Your task to perform on an android device: How do I get to the nearest Macy's? Image 0: 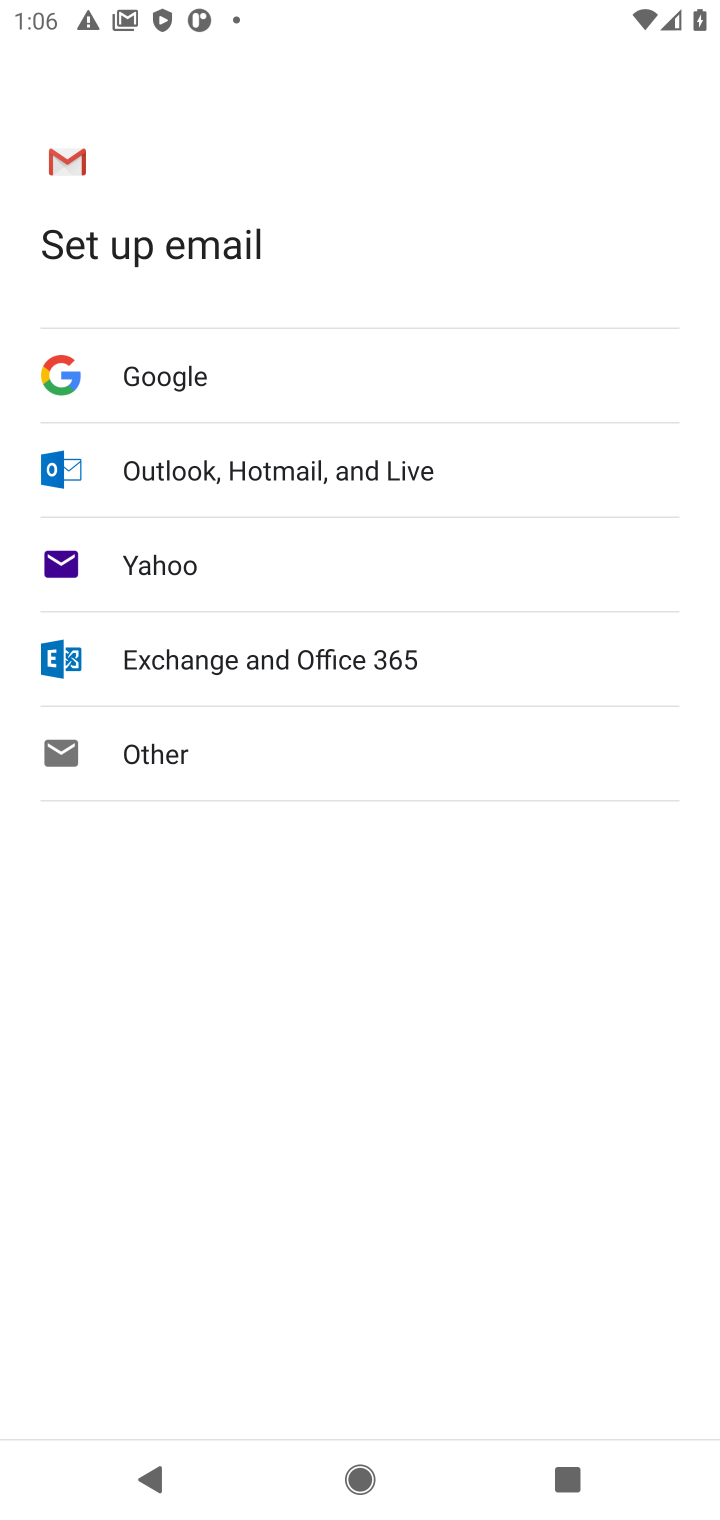
Step 0: press home button
Your task to perform on an android device: How do I get to the nearest Macy's? Image 1: 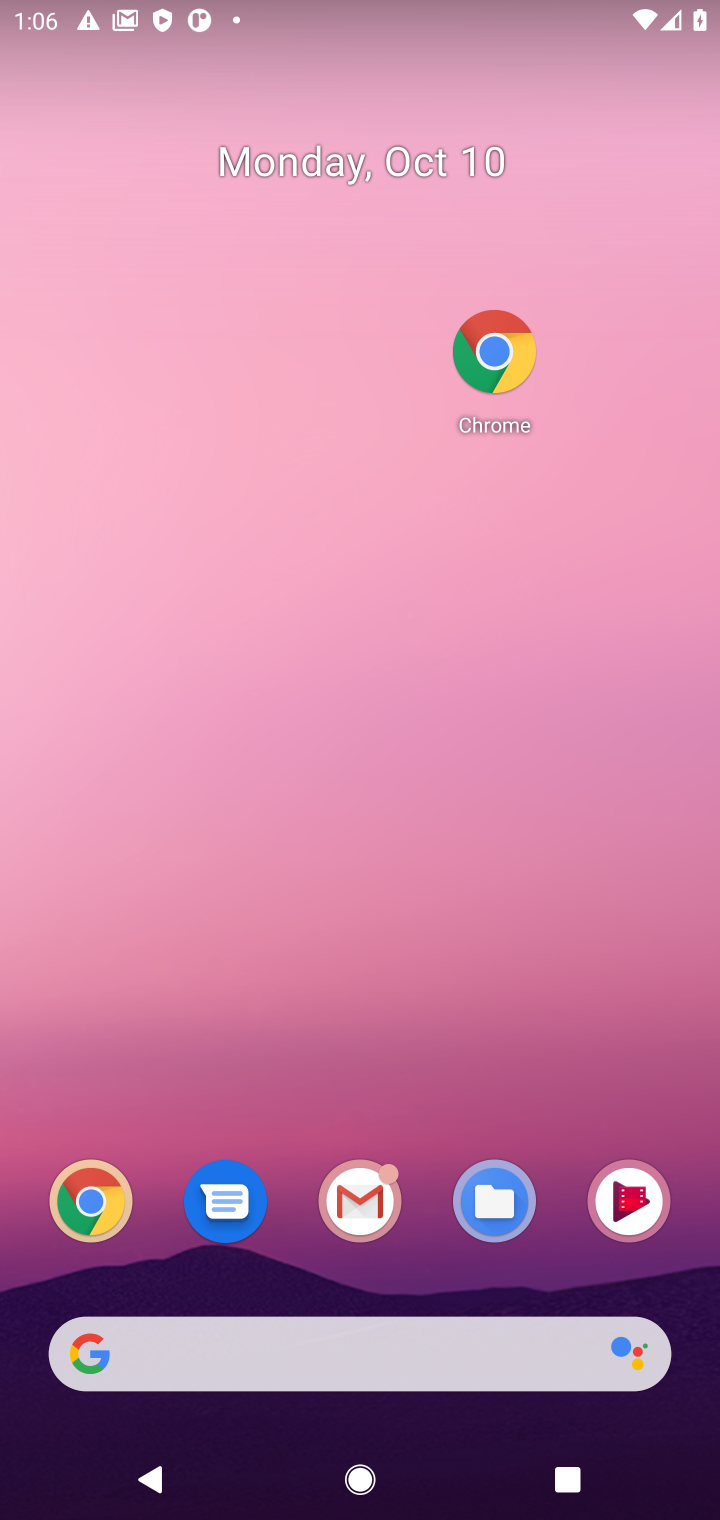
Step 1: click (104, 1202)
Your task to perform on an android device: How do I get to the nearest Macy's? Image 2: 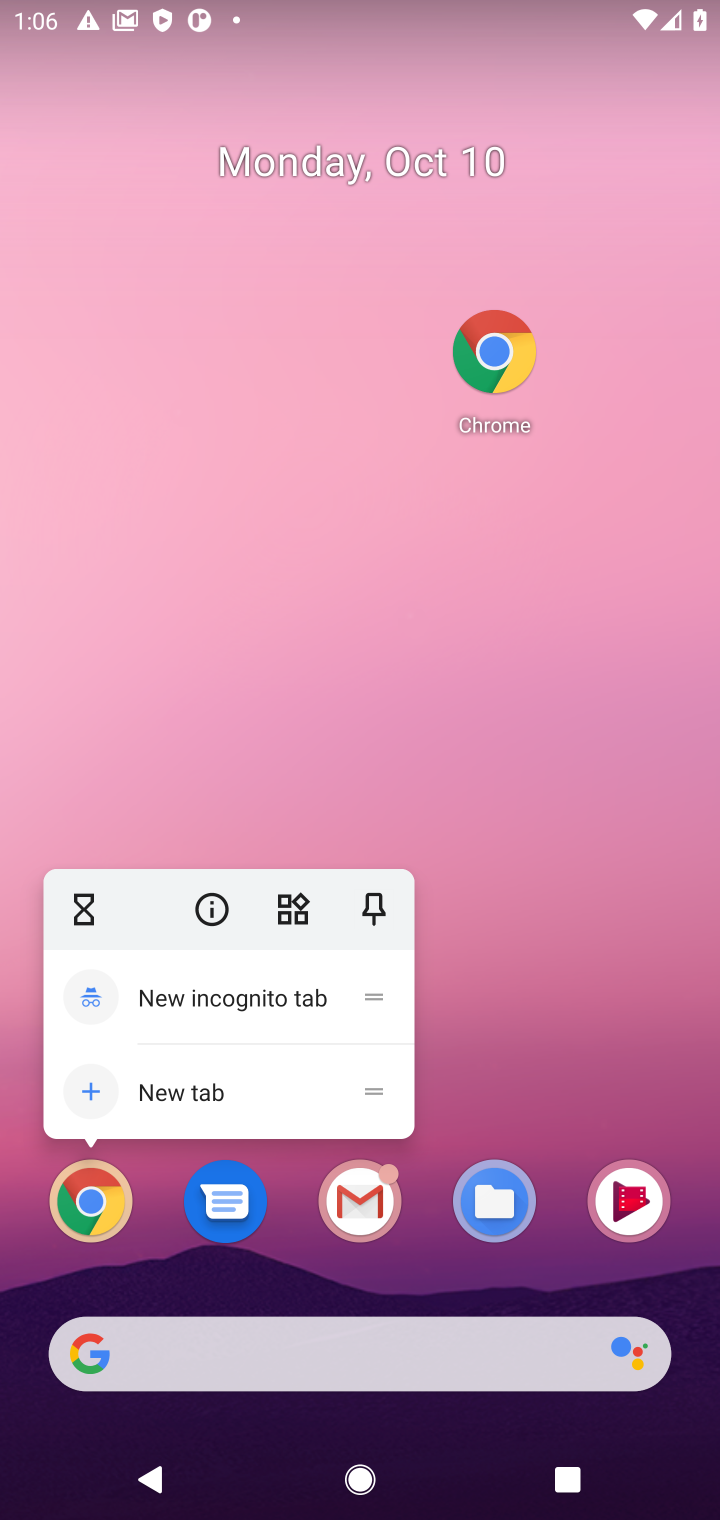
Step 2: click (102, 1205)
Your task to perform on an android device: How do I get to the nearest Macy's? Image 3: 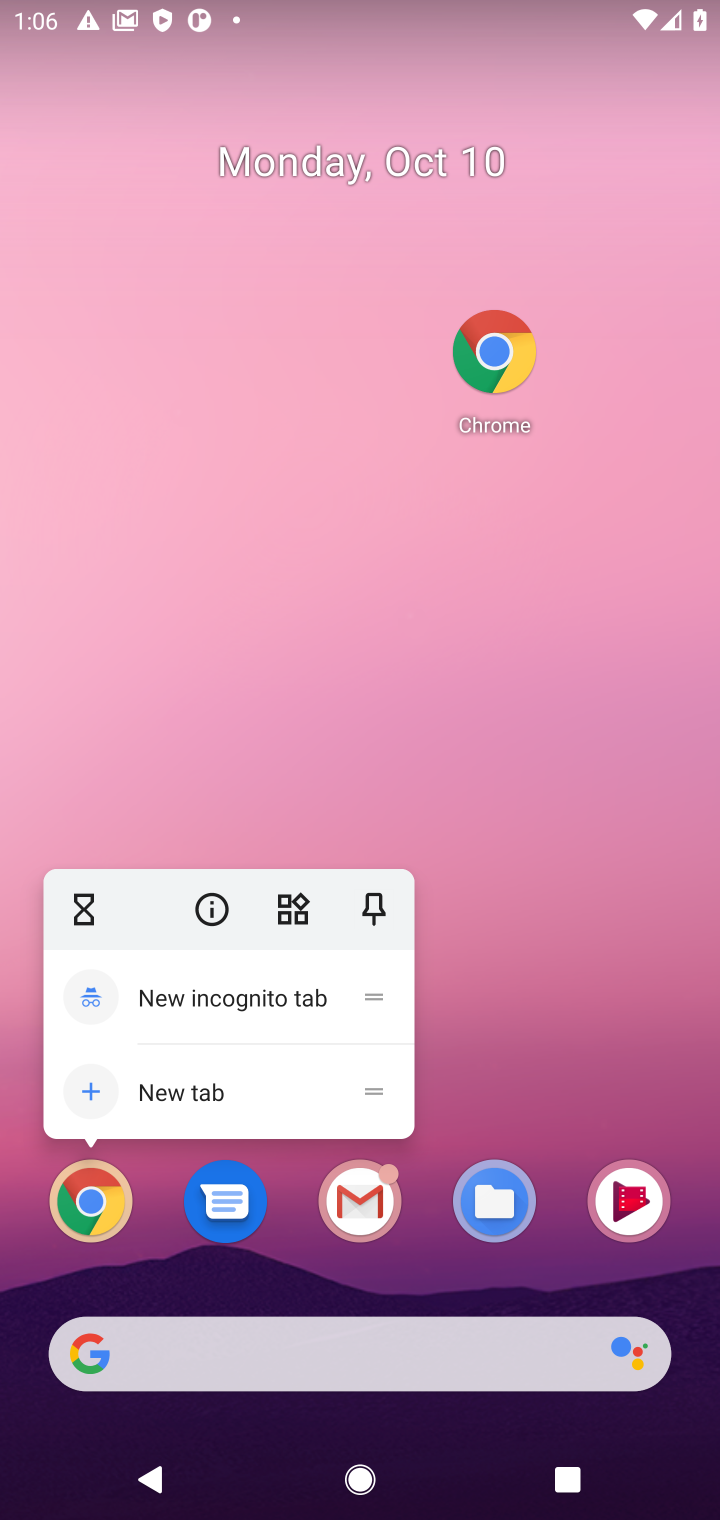
Step 3: click (504, 326)
Your task to perform on an android device: How do I get to the nearest Macy's? Image 4: 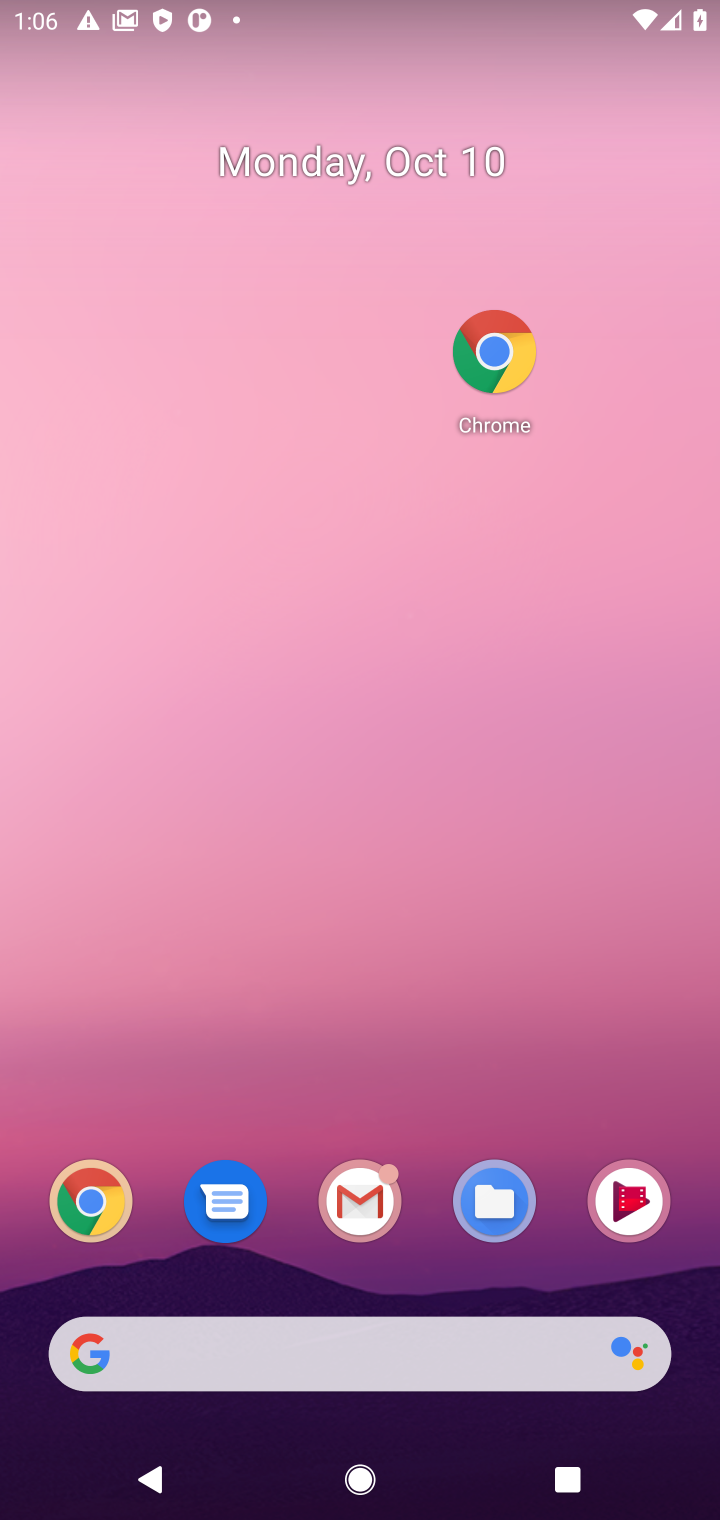
Step 4: click (494, 359)
Your task to perform on an android device: How do I get to the nearest Macy's? Image 5: 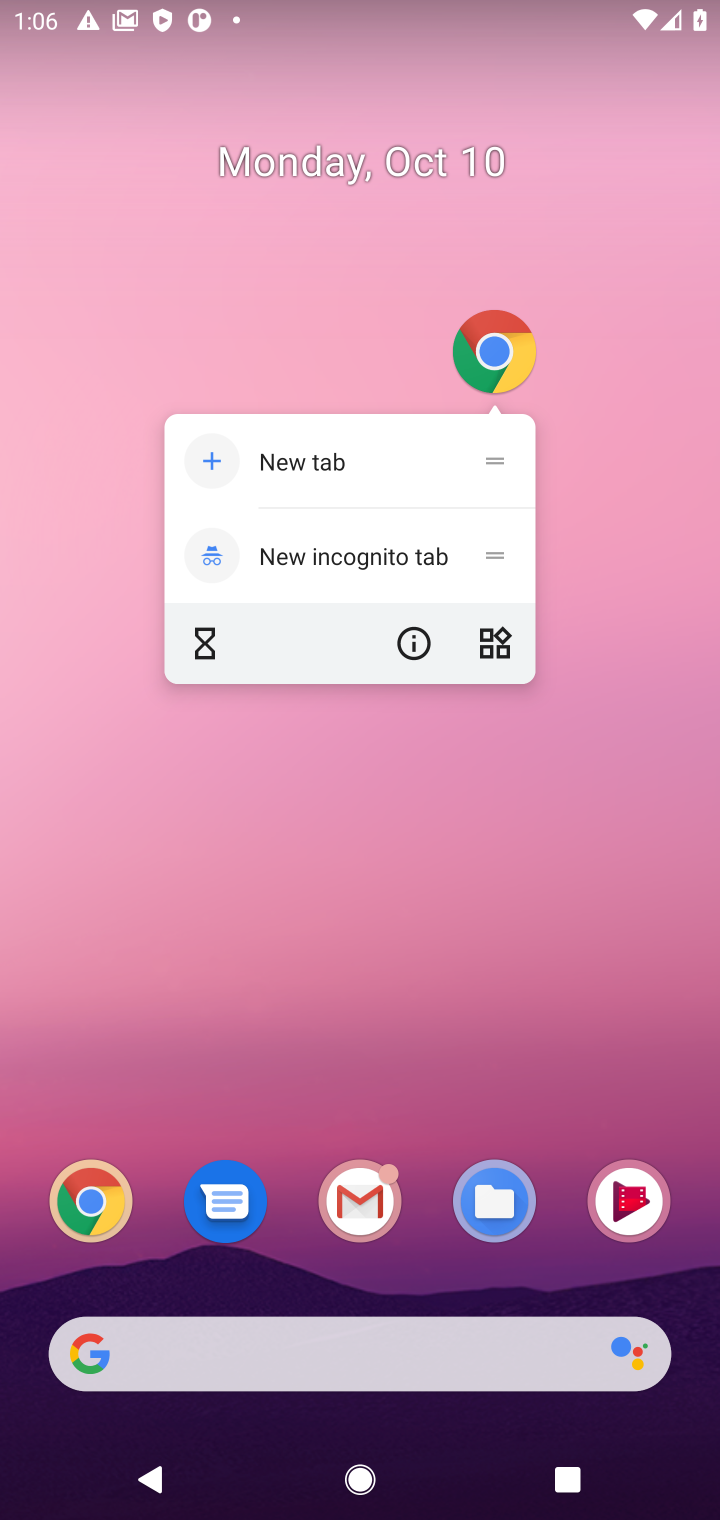
Step 5: click (494, 359)
Your task to perform on an android device: How do I get to the nearest Macy's? Image 6: 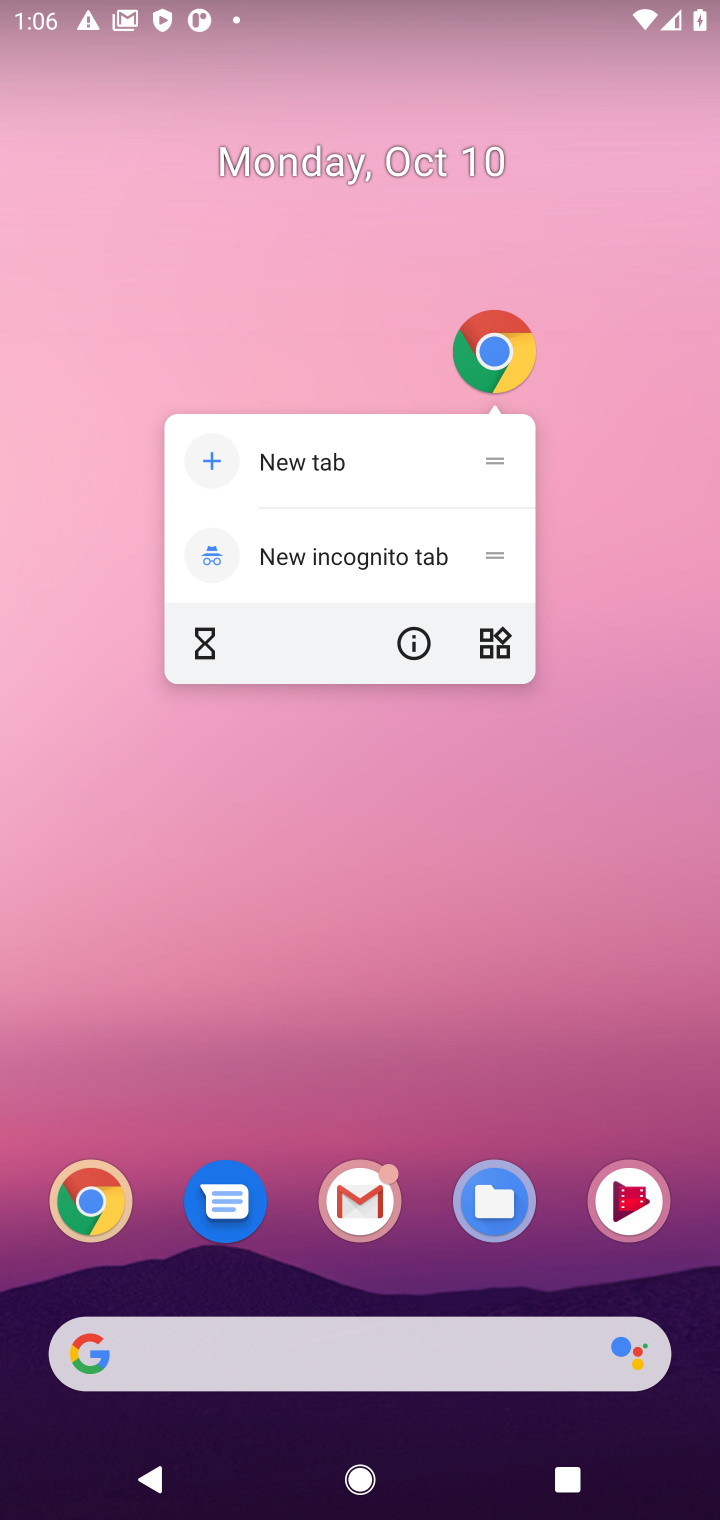
Step 6: click (494, 359)
Your task to perform on an android device: How do I get to the nearest Macy's? Image 7: 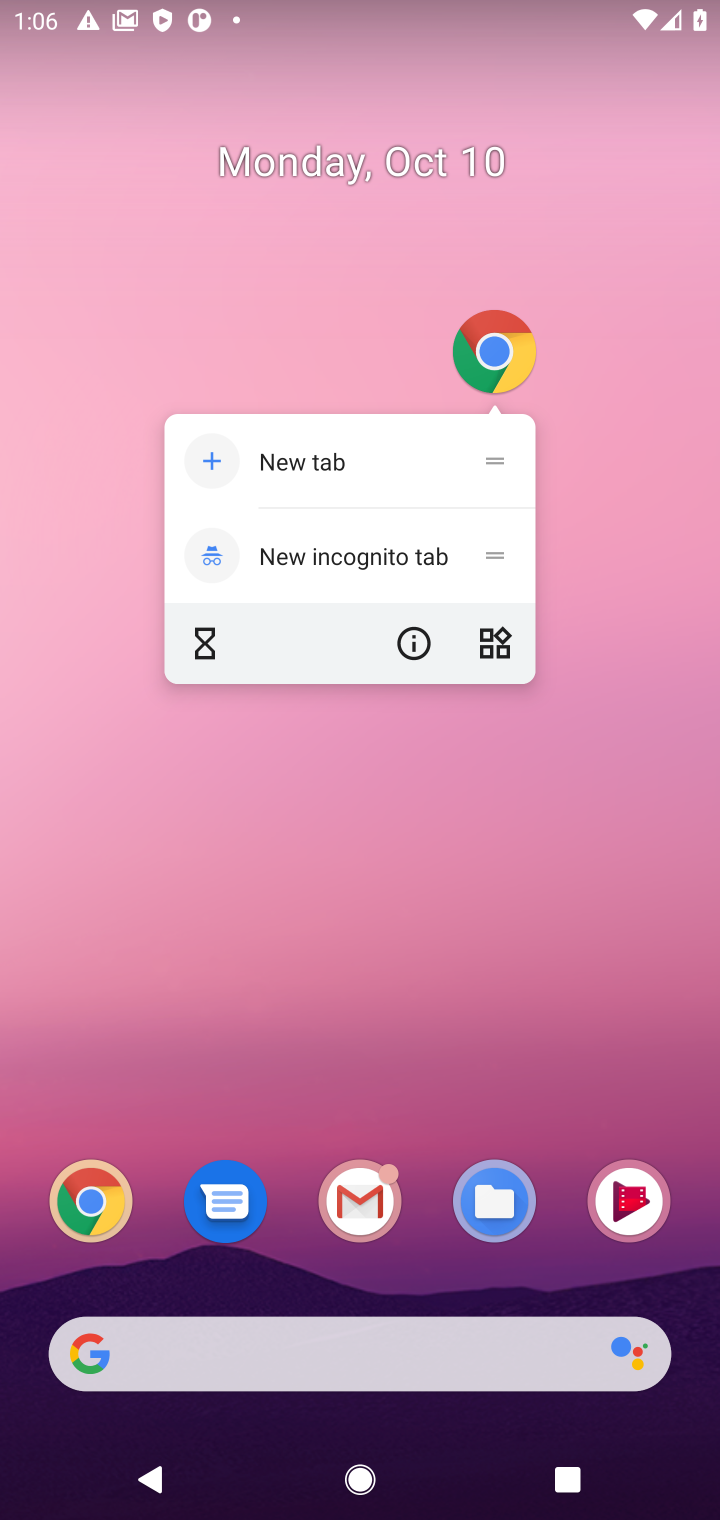
Step 7: click (494, 359)
Your task to perform on an android device: How do I get to the nearest Macy's? Image 8: 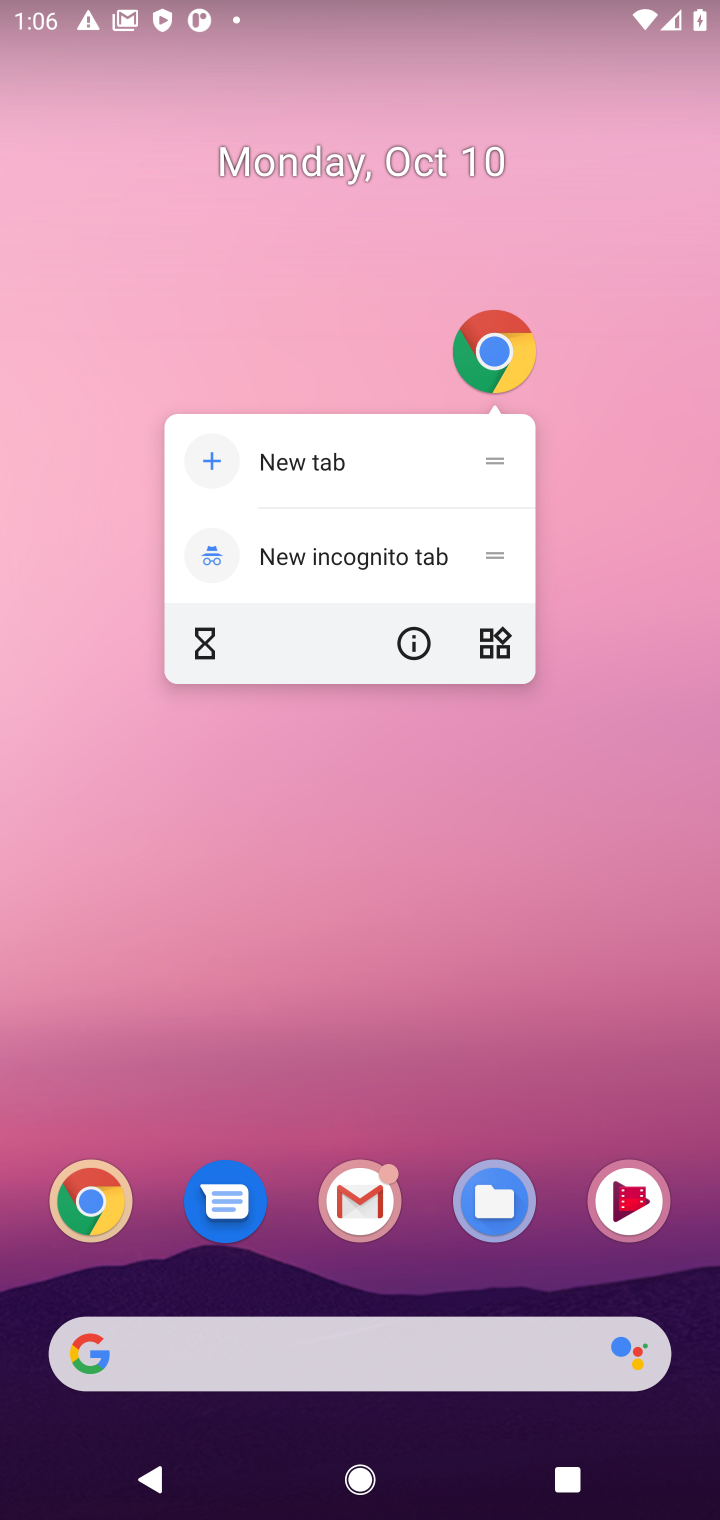
Step 8: click (494, 361)
Your task to perform on an android device: How do I get to the nearest Macy's? Image 9: 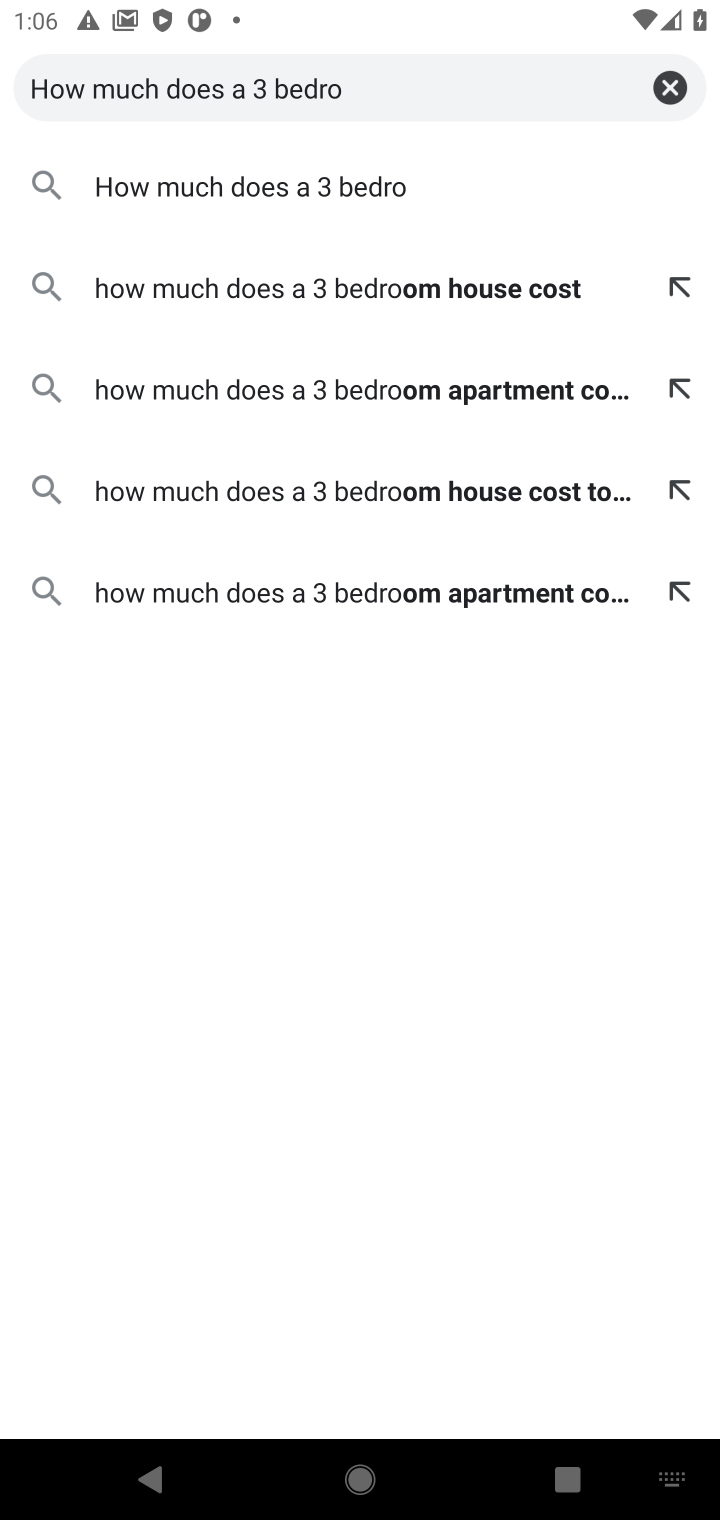
Step 9: click (672, 88)
Your task to perform on an android device: How do I get to the nearest Macy's? Image 10: 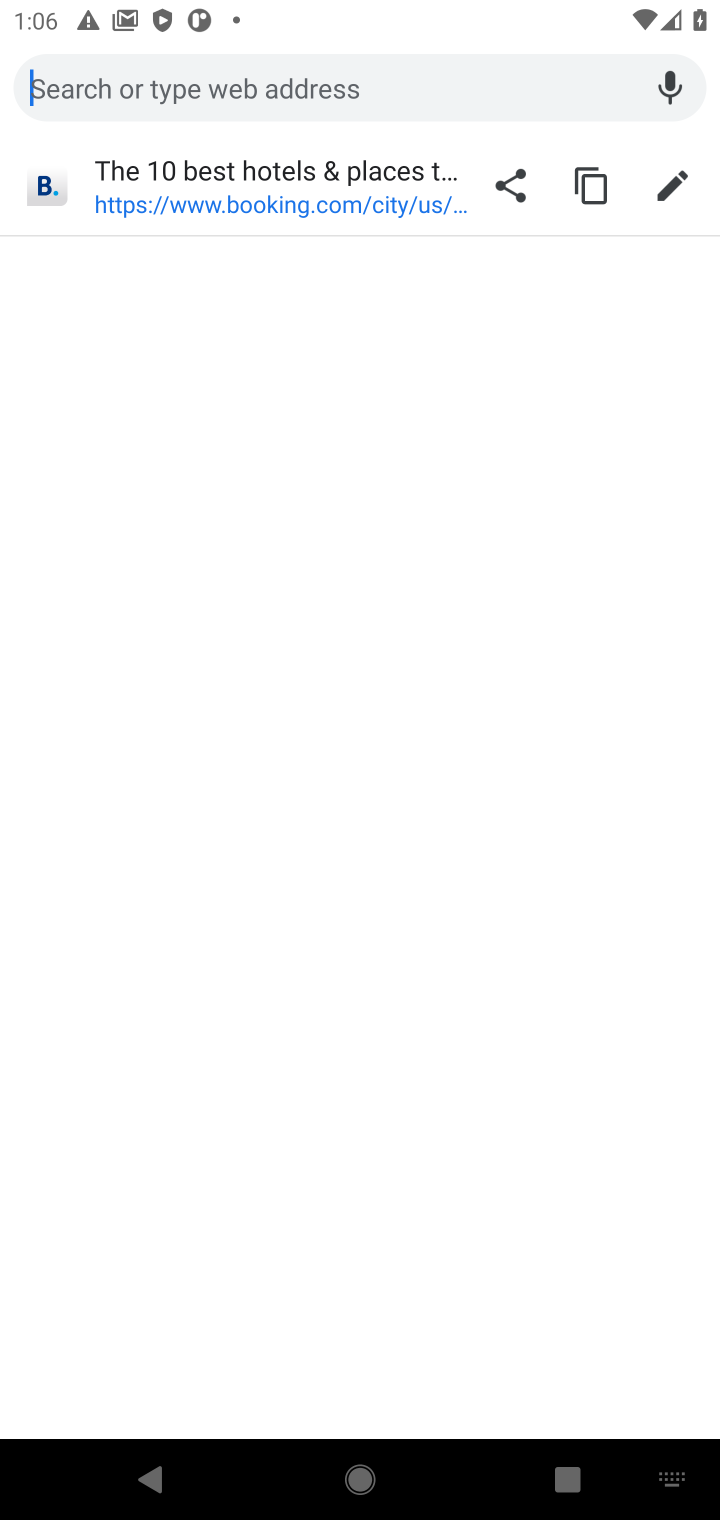
Step 10: click (344, 77)
Your task to perform on an android device: How do I get to the nearest Macy's? Image 11: 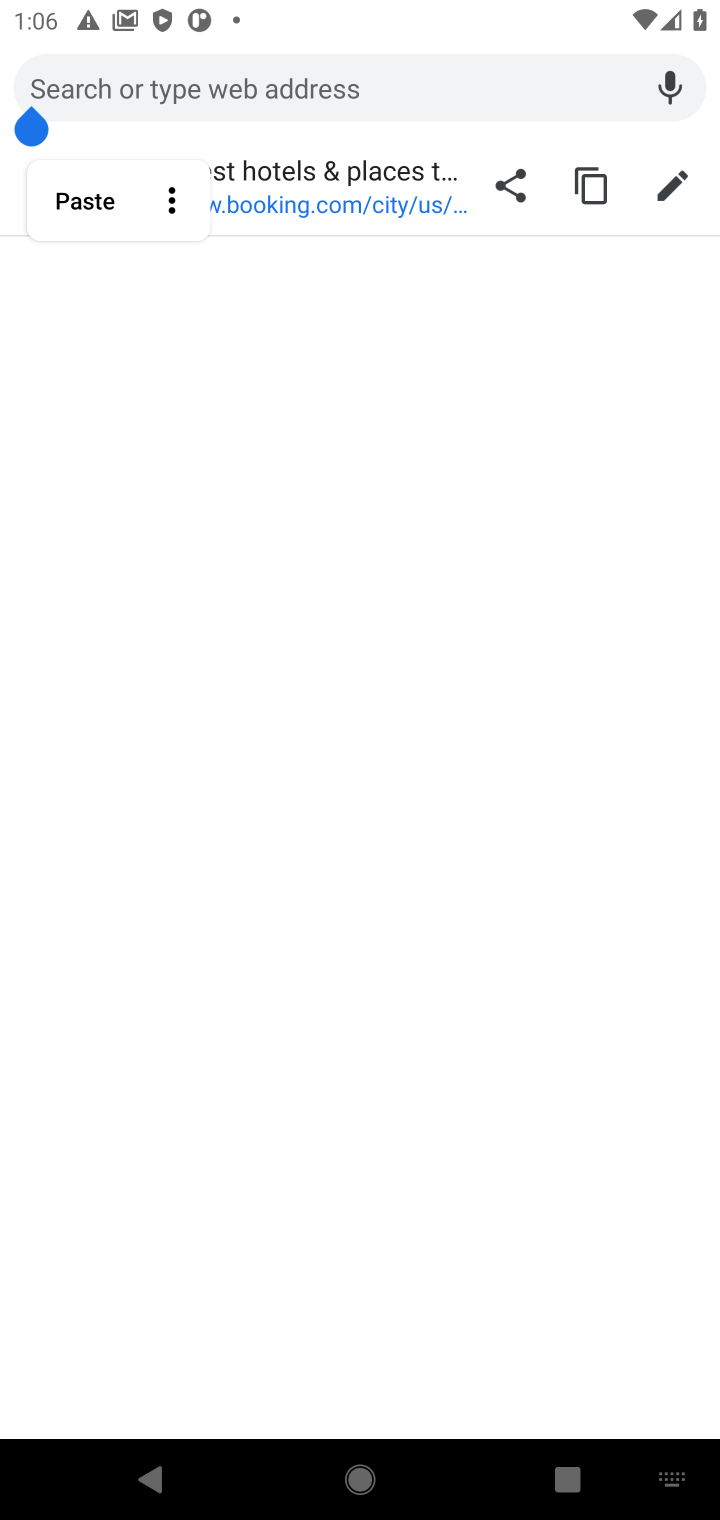
Step 11: type "How do I get to the nearest Macy's?"
Your task to perform on an android device: How do I get to the nearest Macy's? Image 12: 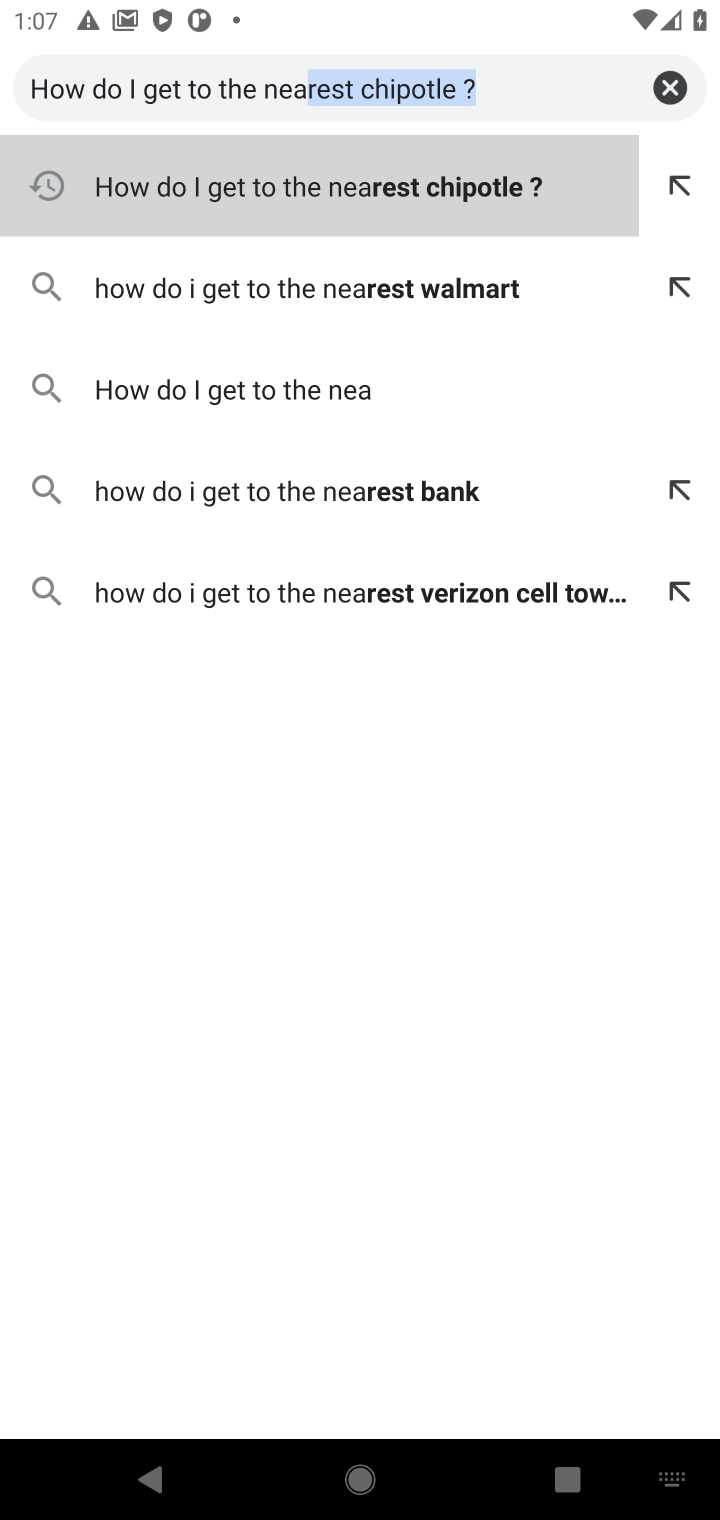
Step 12: click (300, 86)
Your task to perform on an android device: How do I get to the nearest Macy's? Image 13: 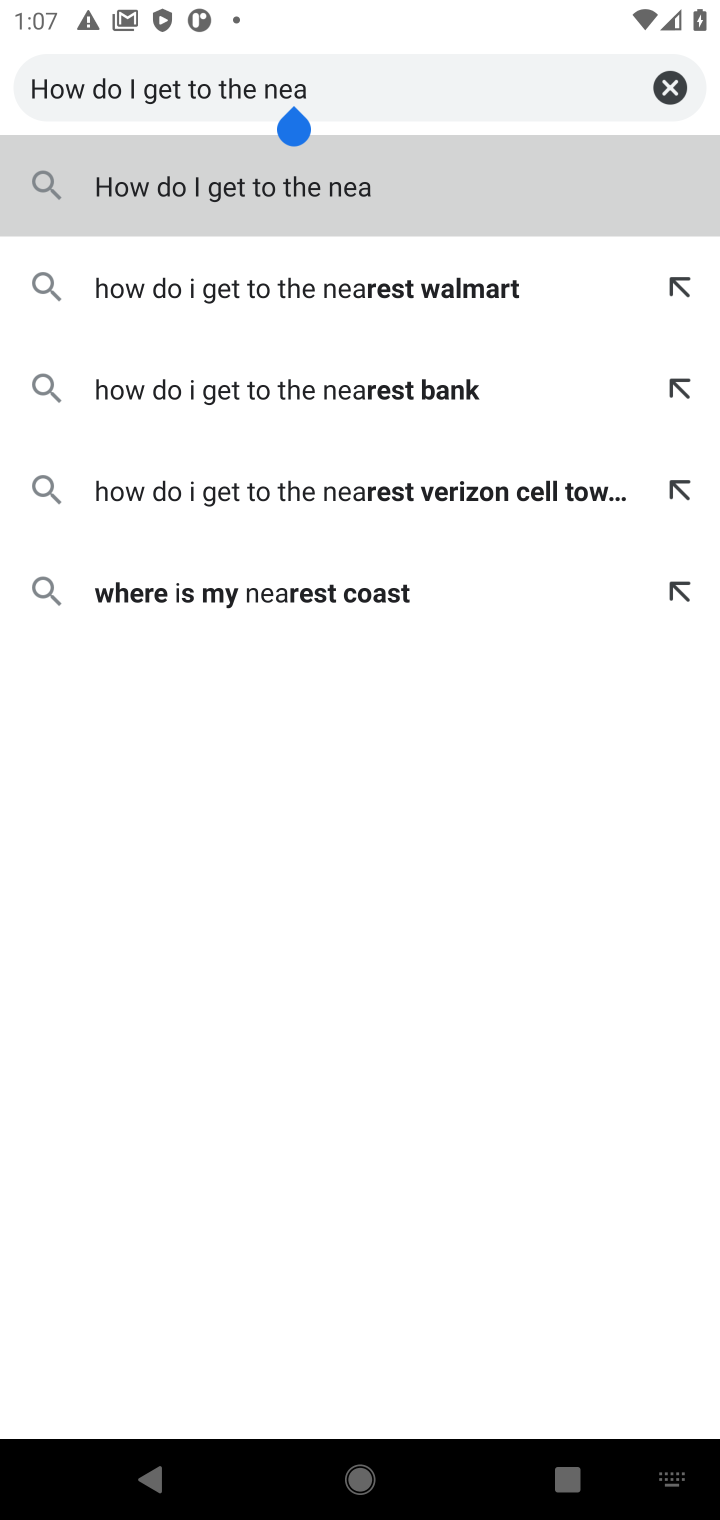
Step 13: click (308, 92)
Your task to perform on an android device: How do I get to the nearest Macy's? Image 14: 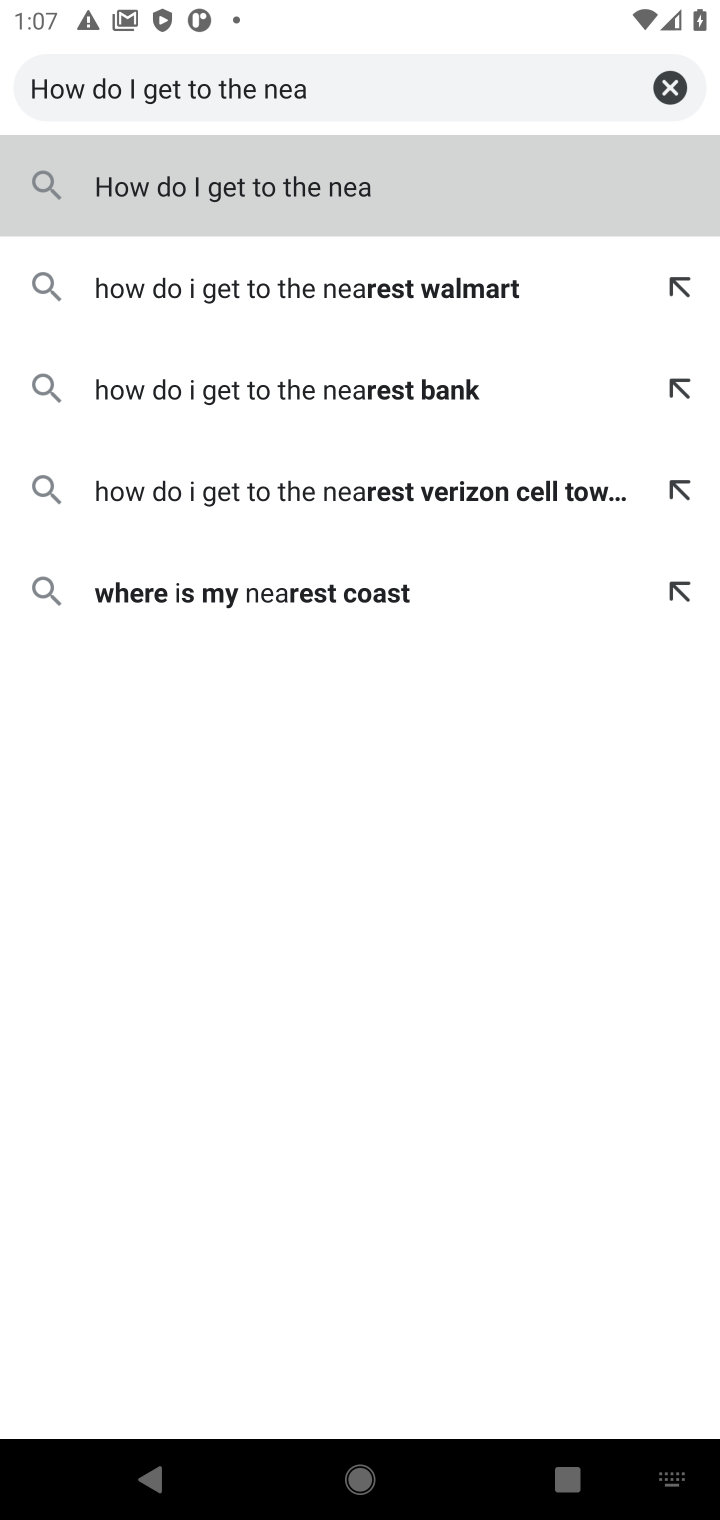
Step 14: type "rest mecy's?"
Your task to perform on an android device: How do I get to the nearest Macy's? Image 15: 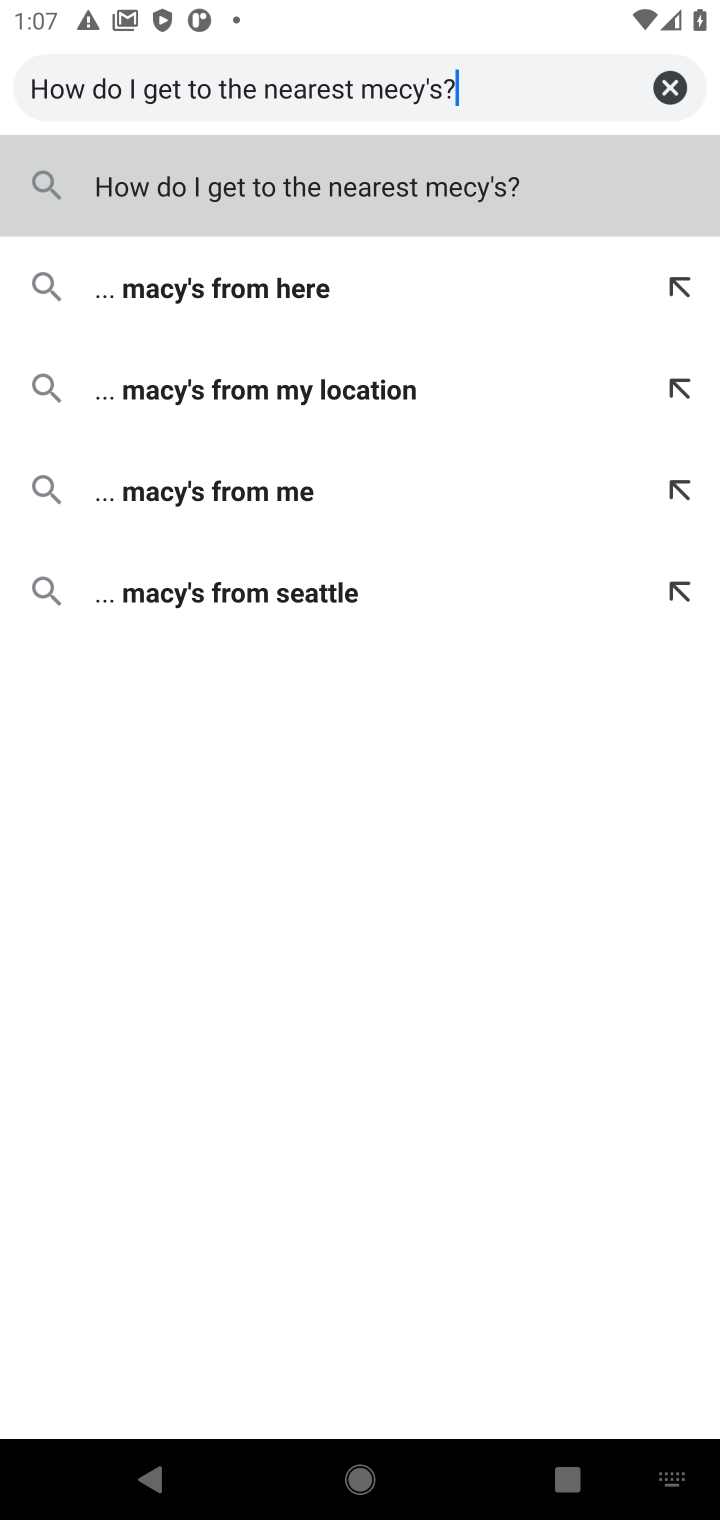
Step 15: click (327, 195)
Your task to perform on an android device: How do I get to the nearest Macy's? Image 16: 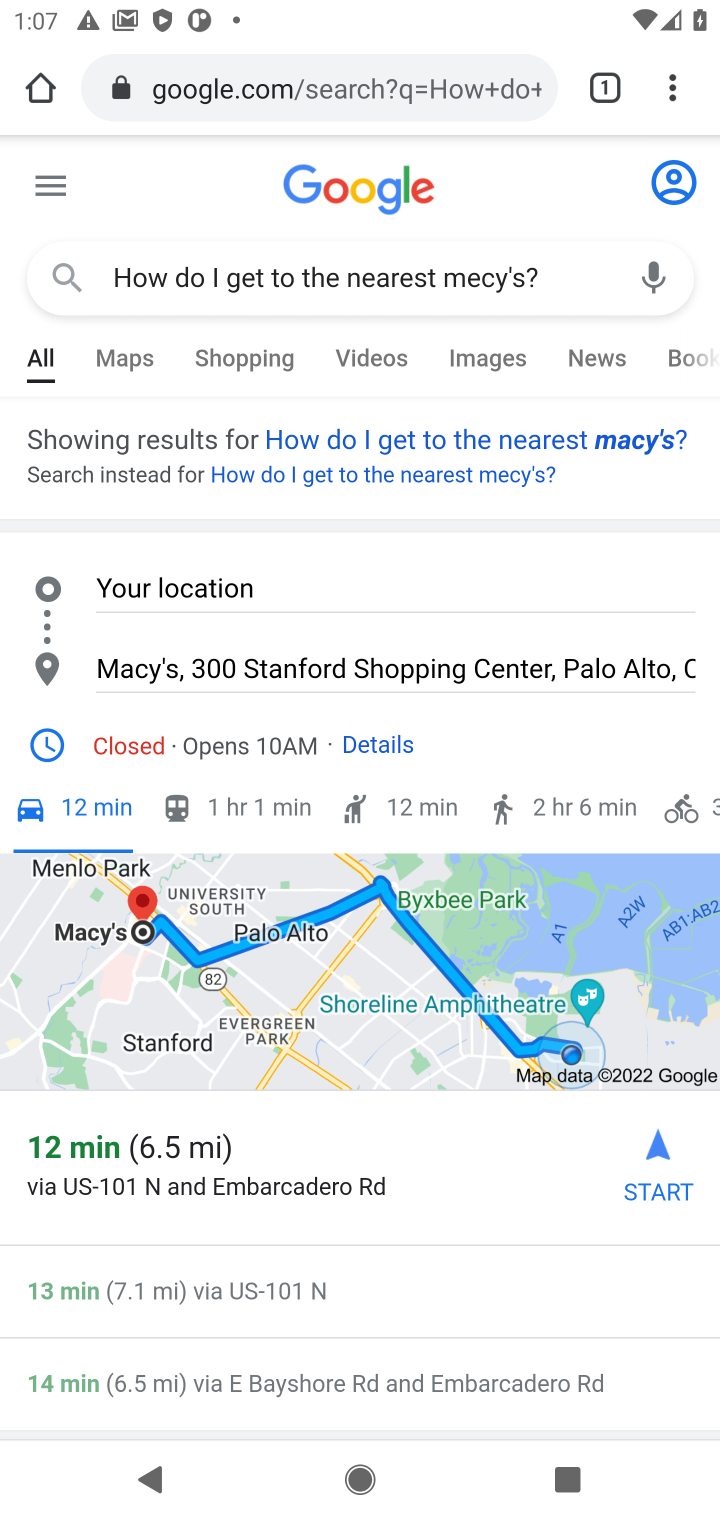
Step 16: task complete